Your task to perform on an android device: set an alarm Image 0: 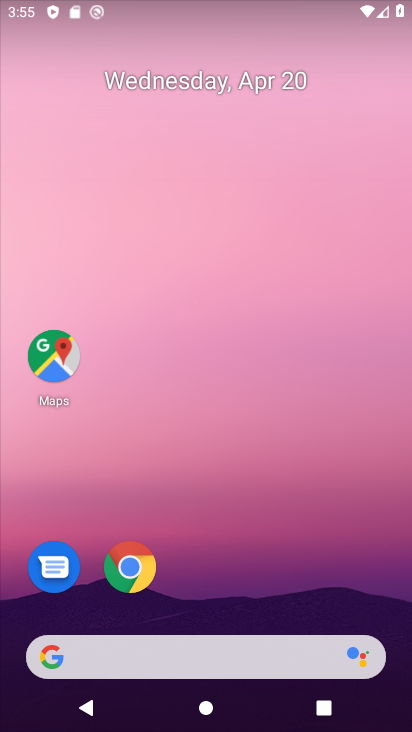
Step 0: drag from (274, 576) to (238, 148)
Your task to perform on an android device: set an alarm Image 1: 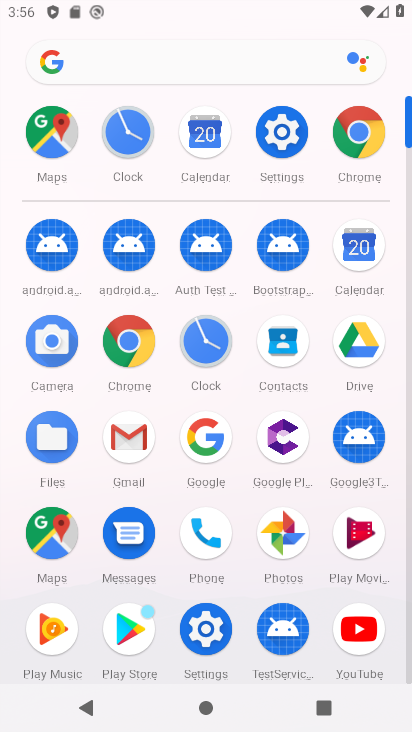
Step 1: click (132, 139)
Your task to perform on an android device: set an alarm Image 2: 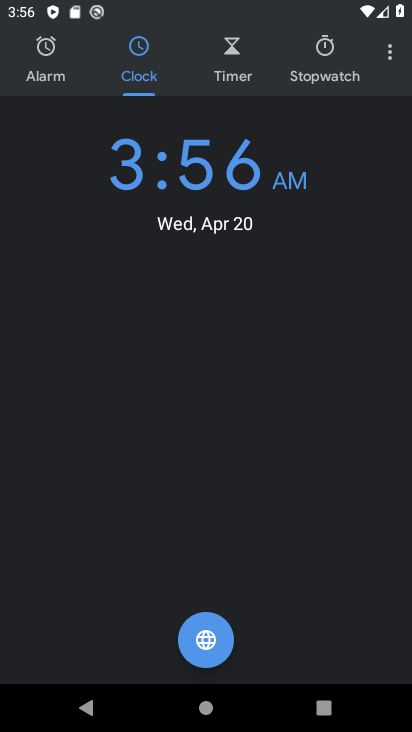
Step 2: click (42, 77)
Your task to perform on an android device: set an alarm Image 3: 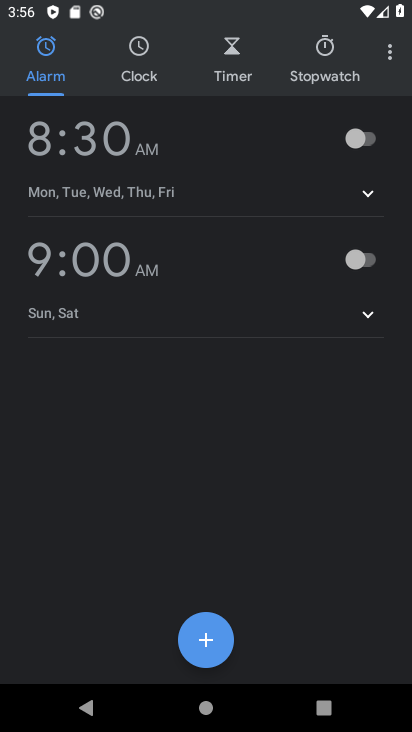
Step 3: click (209, 630)
Your task to perform on an android device: set an alarm Image 4: 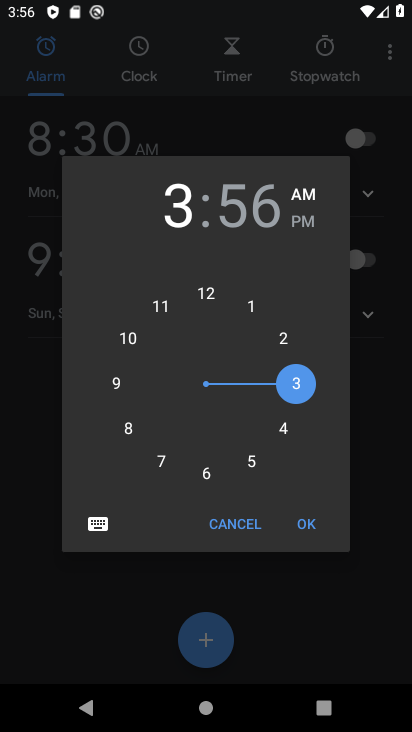
Step 4: click (249, 461)
Your task to perform on an android device: set an alarm Image 5: 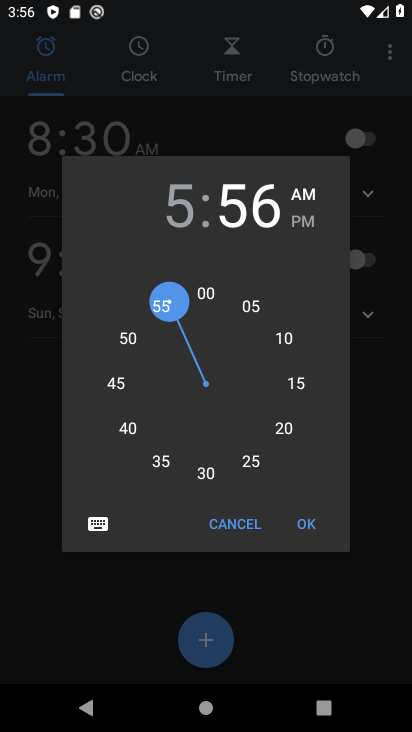
Step 5: click (312, 526)
Your task to perform on an android device: set an alarm Image 6: 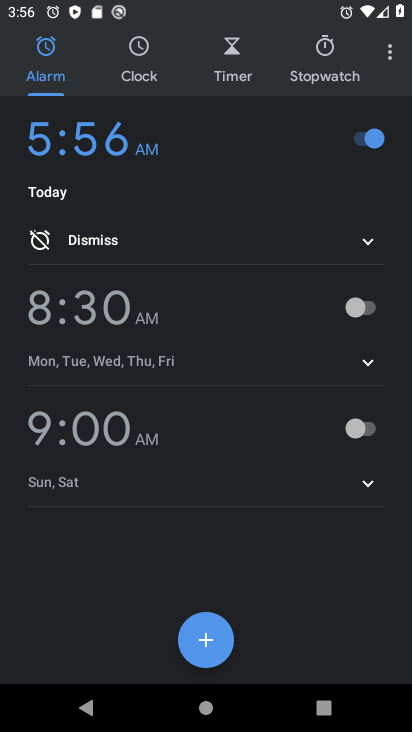
Step 6: task complete